Your task to perform on an android device: Open Reddit.com Image 0: 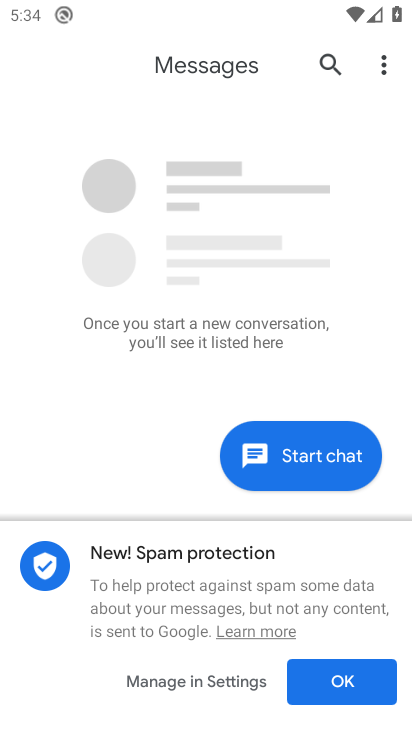
Step 0: press back button
Your task to perform on an android device: Open Reddit.com Image 1: 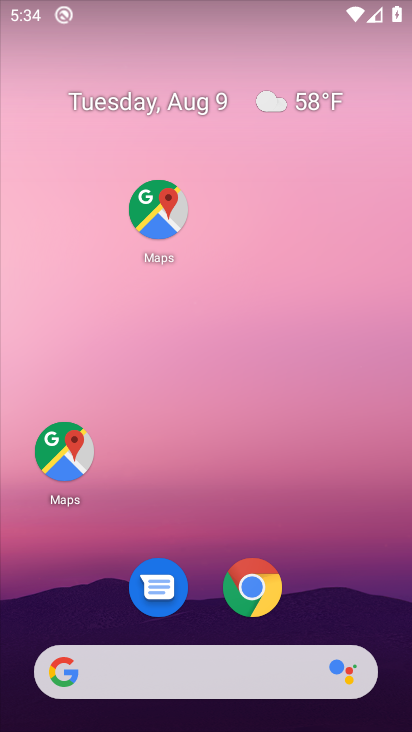
Step 1: drag from (175, 394) to (151, 151)
Your task to perform on an android device: Open Reddit.com Image 2: 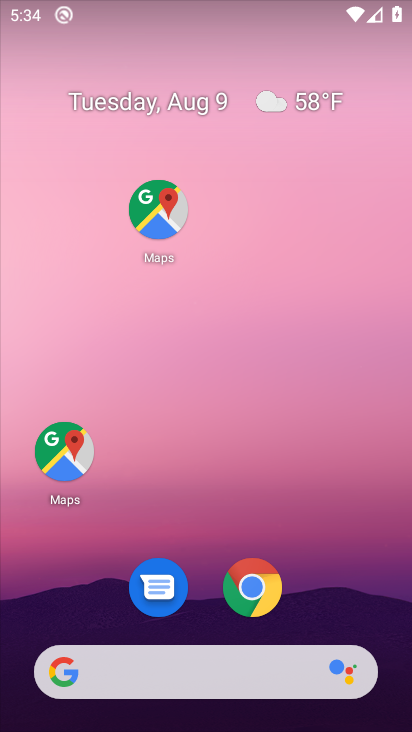
Step 2: drag from (179, 530) to (190, 155)
Your task to perform on an android device: Open Reddit.com Image 3: 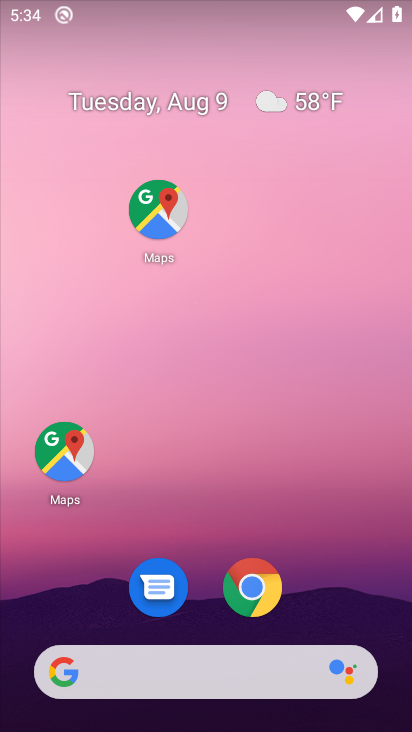
Step 3: drag from (153, 500) to (153, 174)
Your task to perform on an android device: Open Reddit.com Image 4: 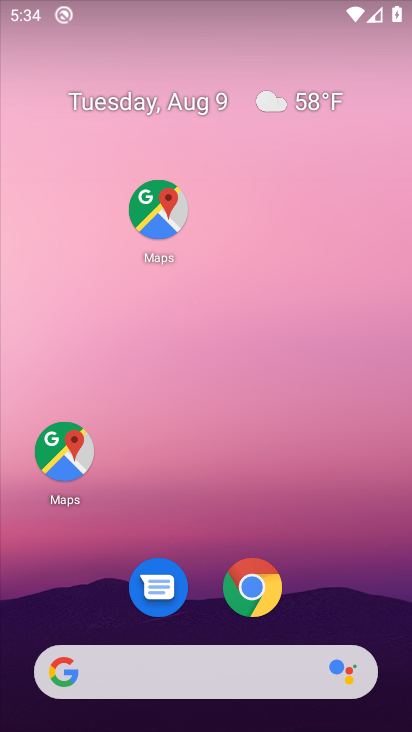
Step 4: drag from (196, 624) to (171, 125)
Your task to perform on an android device: Open Reddit.com Image 5: 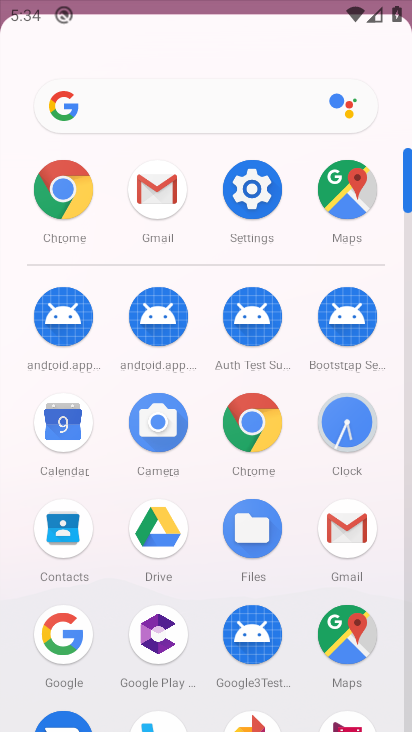
Step 5: click (192, 117)
Your task to perform on an android device: Open Reddit.com Image 6: 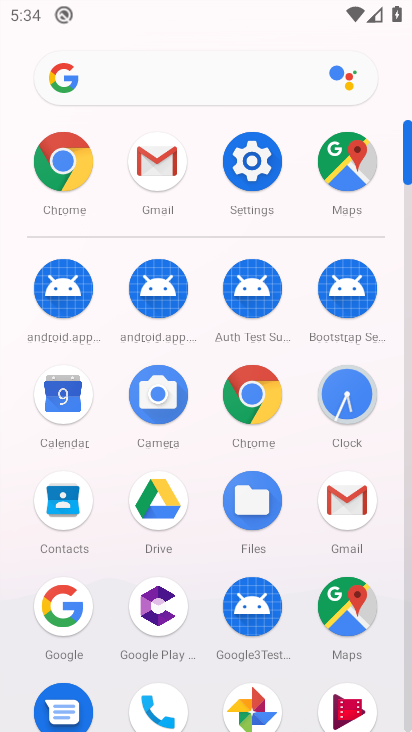
Step 6: click (47, 160)
Your task to perform on an android device: Open Reddit.com Image 7: 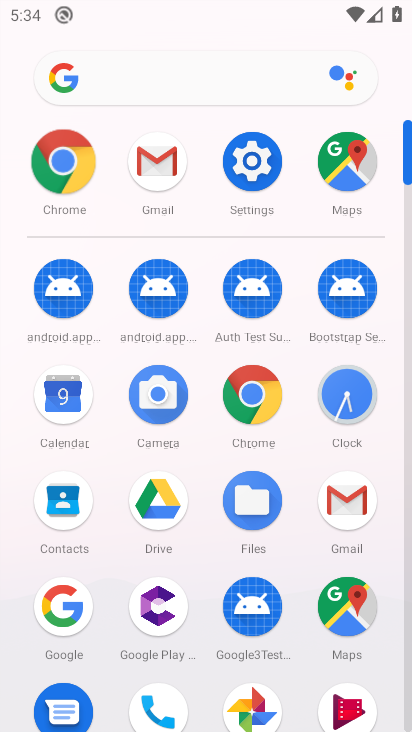
Step 7: click (59, 164)
Your task to perform on an android device: Open Reddit.com Image 8: 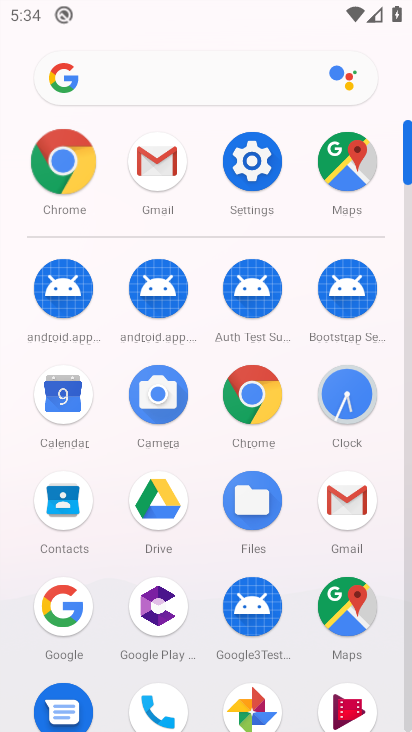
Step 8: click (59, 165)
Your task to perform on an android device: Open Reddit.com Image 9: 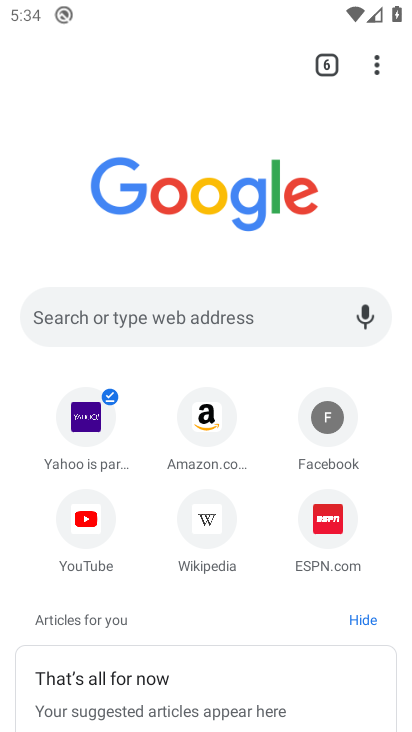
Step 9: click (97, 289)
Your task to perform on an android device: Open Reddit.com Image 10: 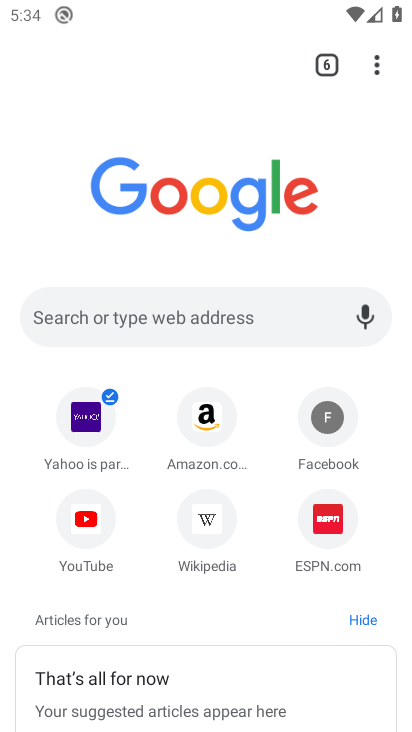
Step 10: click (95, 294)
Your task to perform on an android device: Open Reddit.com Image 11: 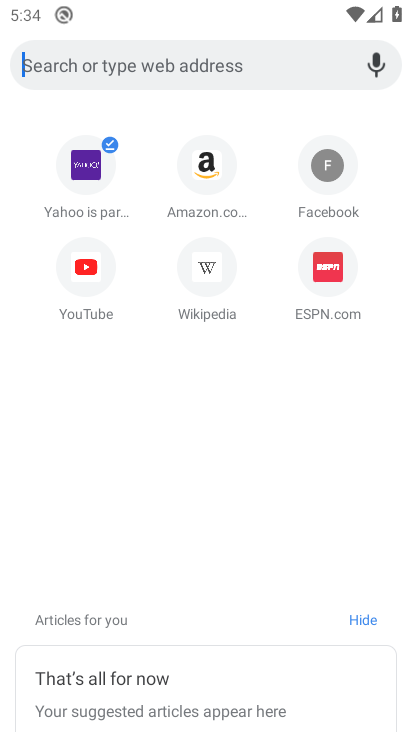
Step 11: click (93, 333)
Your task to perform on an android device: Open Reddit.com Image 12: 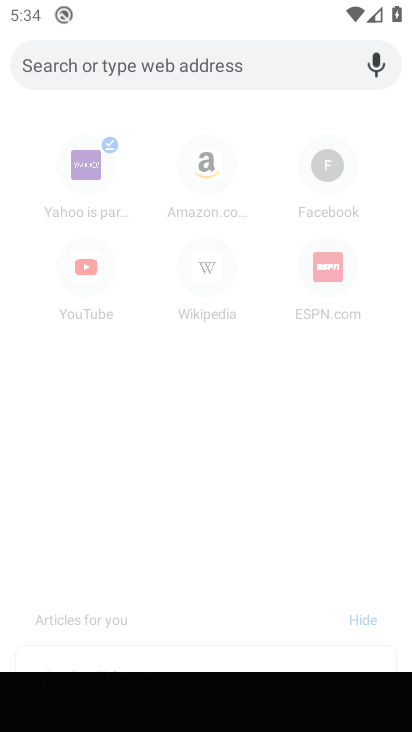
Step 12: click (98, 344)
Your task to perform on an android device: Open Reddit.com Image 13: 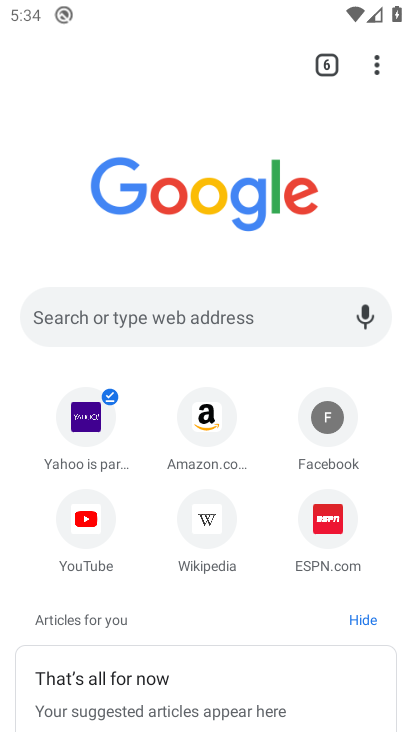
Step 13: click (117, 342)
Your task to perform on an android device: Open Reddit.com Image 14: 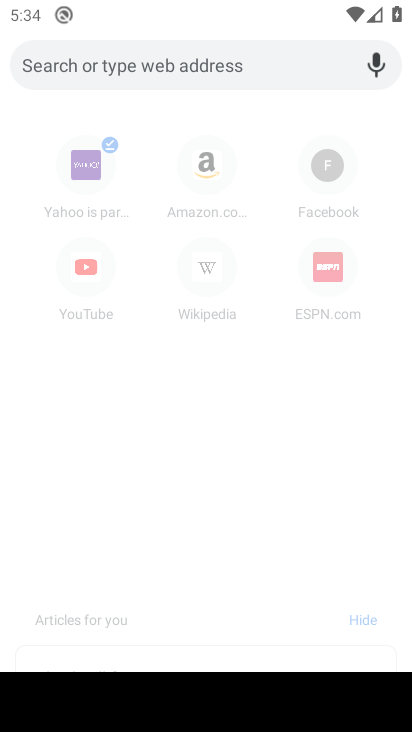
Step 14: click (44, 67)
Your task to perform on an android device: Open Reddit.com Image 15: 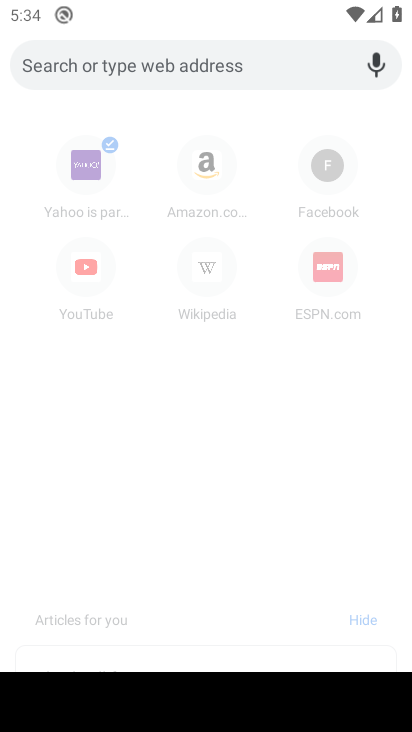
Step 15: type "reddit.com"
Your task to perform on an android device: Open Reddit.com Image 16: 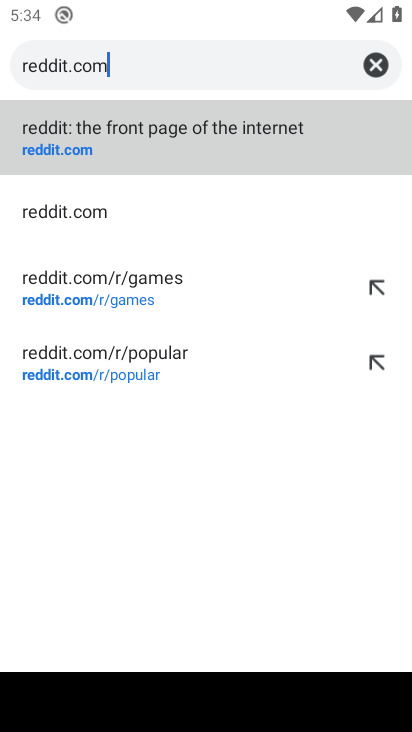
Step 16: click (47, 139)
Your task to perform on an android device: Open Reddit.com Image 17: 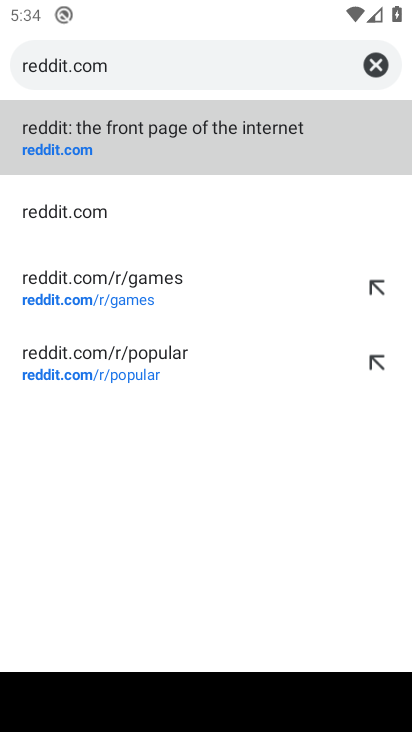
Step 17: click (47, 139)
Your task to perform on an android device: Open Reddit.com Image 18: 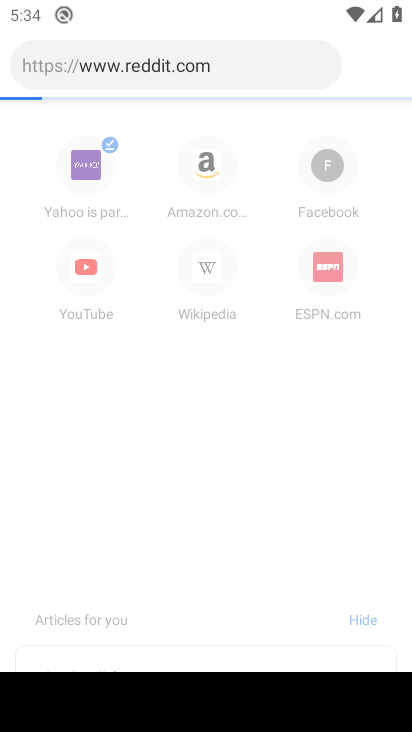
Step 18: click (47, 139)
Your task to perform on an android device: Open Reddit.com Image 19: 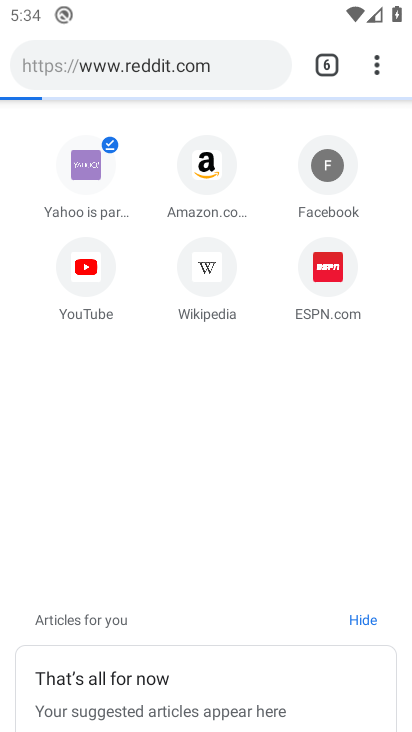
Step 19: click (51, 142)
Your task to perform on an android device: Open Reddit.com Image 20: 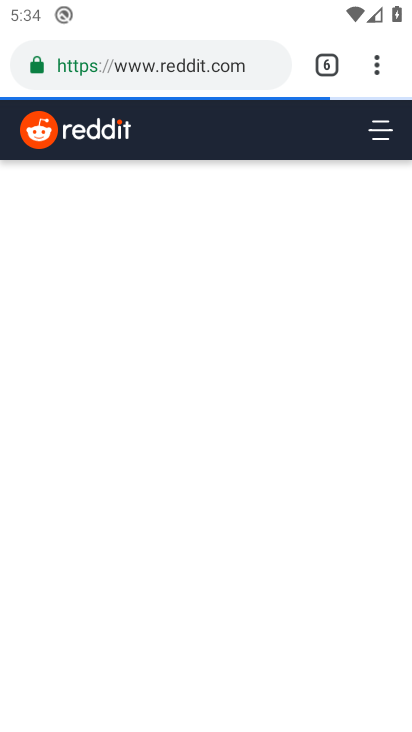
Step 20: task complete